Your task to perform on an android device: Toggle the flashlight Image 0: 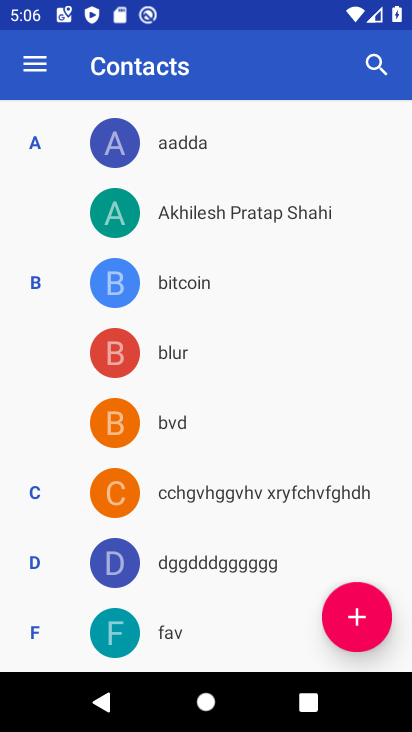
Step 0: press home button
Your task to perform on an android device: Toggle the flashlight Image 1: 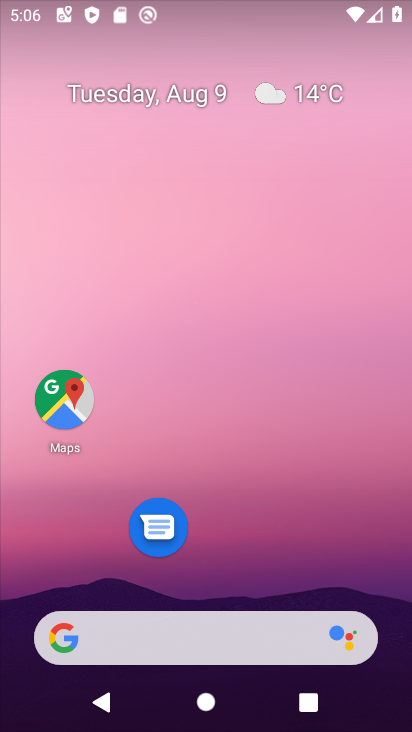
Step 1: drag from (219, 573) to (272, 59)
Your task to perform on an android device: Toggle the flashlight Image 2: 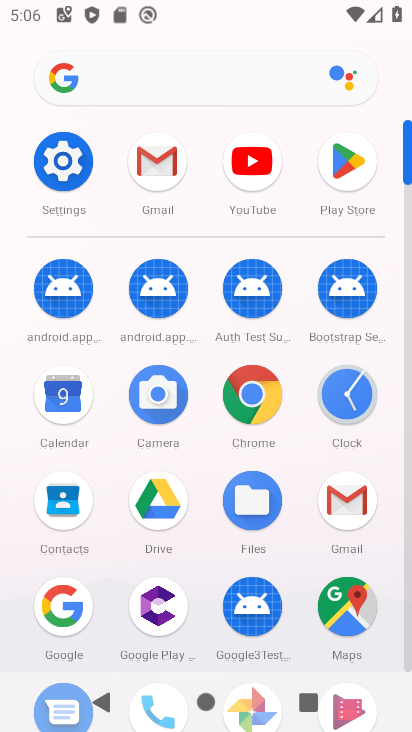
Step 2: click (73, 185)
Your task to perform on an android device: Toggle the flashlight Image 3: 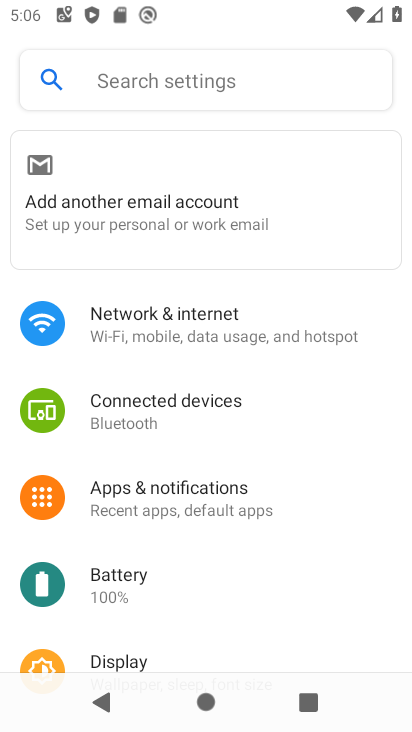
Step 3: task complete